Your task to perform on an android device: install app "Spotify: Music and Podcasts" Image 0: 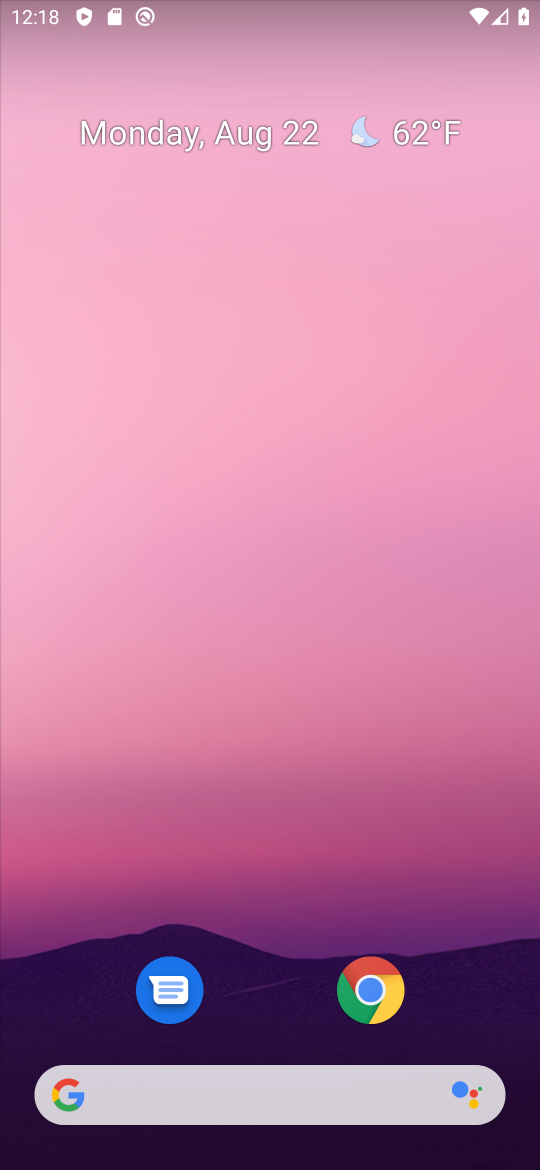
Step 0: drag from (247, 906) to (263, 261)
Your task to perform on an android device: install app "Spotify: Music and Podcasts" Image 1: 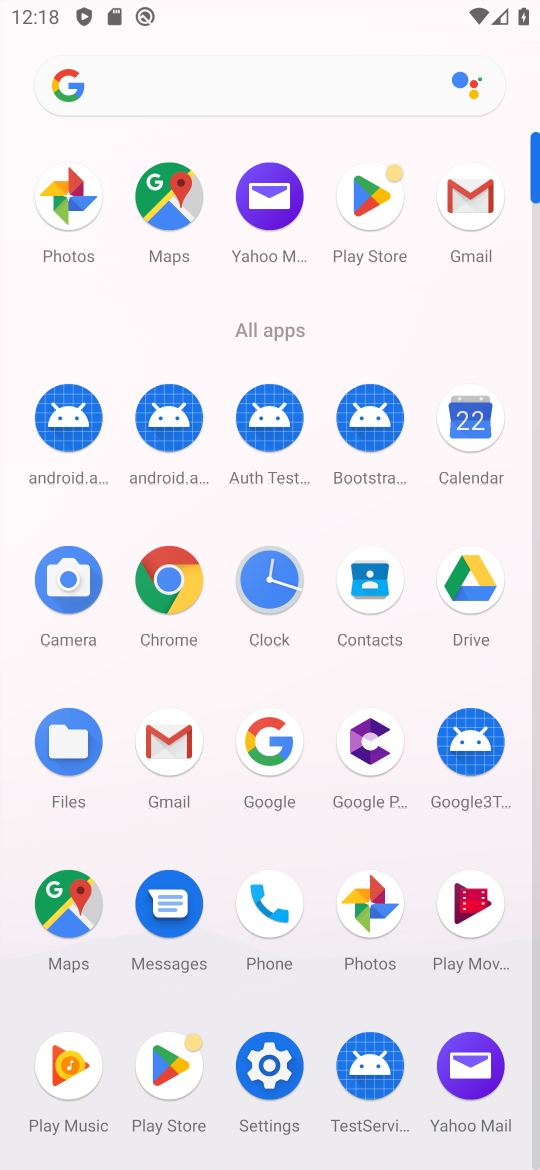
Step 1: click (391, 202)
Your task to perform on an android device: install app "Spotify: Music and Podcasts" Image 2: 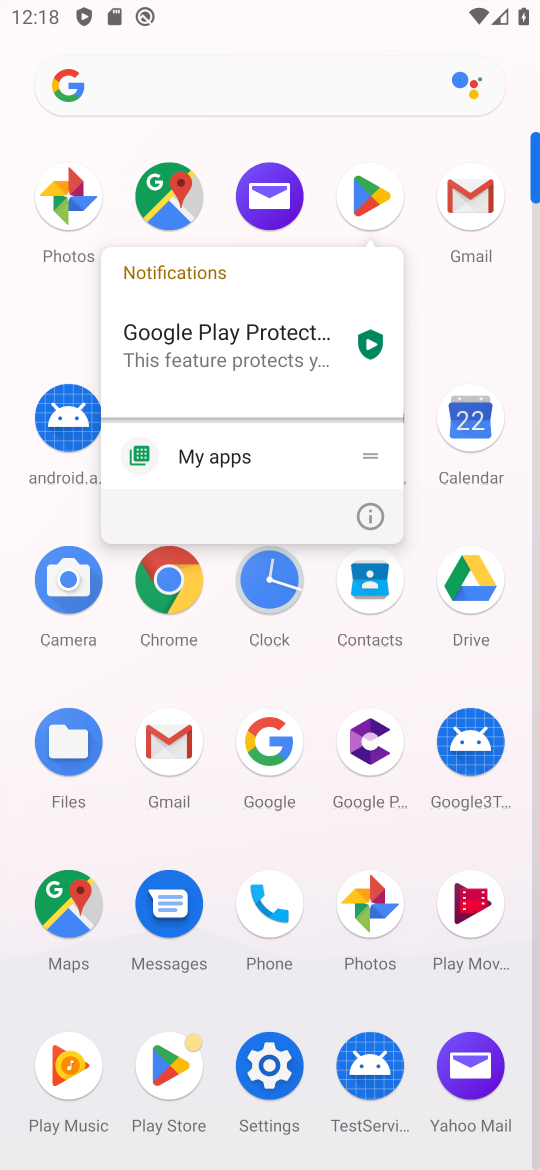
Step 2: click (388, 193)
Your task to perform on an android device: install app "Spotify: Music and Podcasts" Image 3: 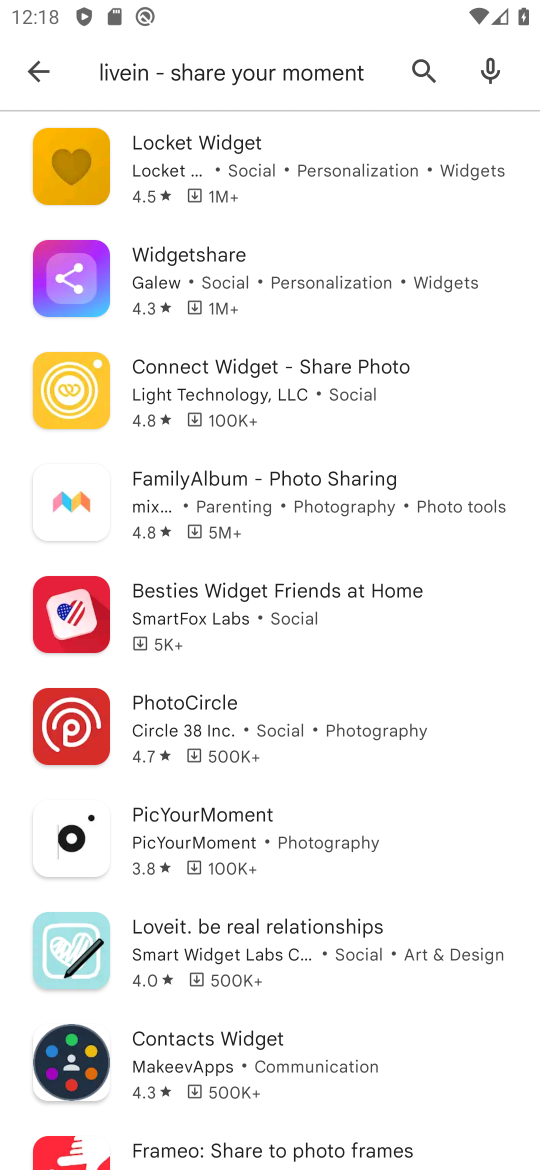
Step 3: click (424, 57)
Your task to perform on an android device: install app "Spotify: Music and Podcasts" Image 4: 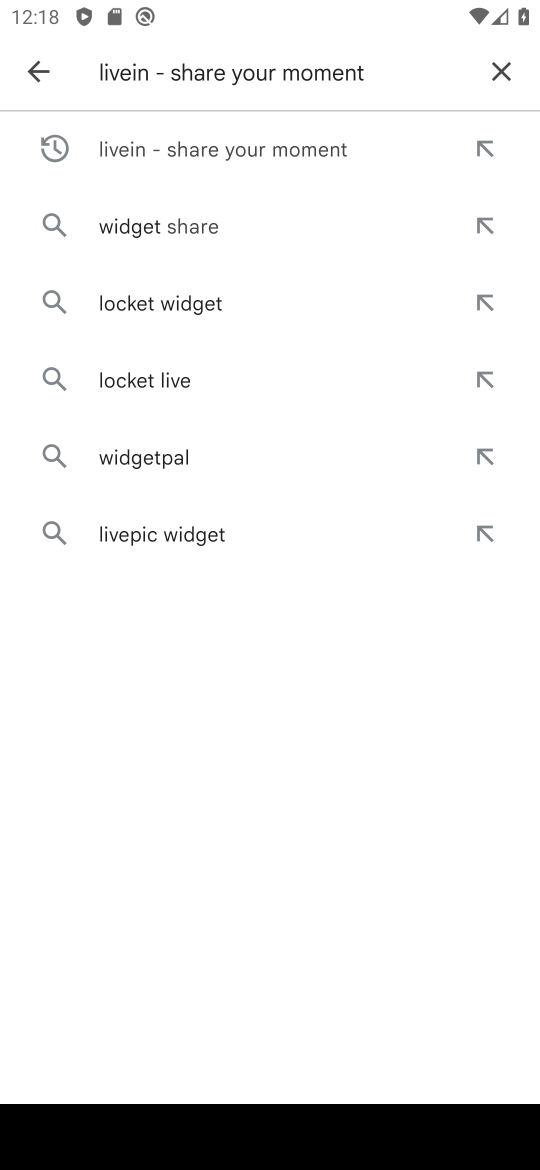
Step 4: click (496, 76)
Your task to perform on an android device: install app "Spotify: Music and Podcasts" Image 5: 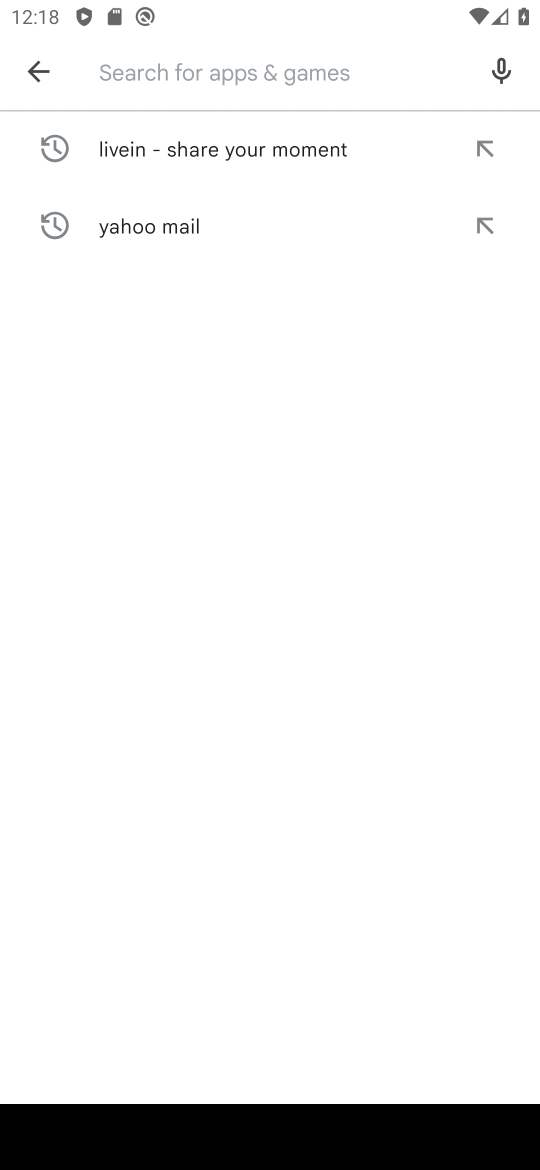
Step 5: type "Spotify: Music and Podcasts"
Your task to perform on an android device: install app "Spotify: Music and Podcasts" Image 6: 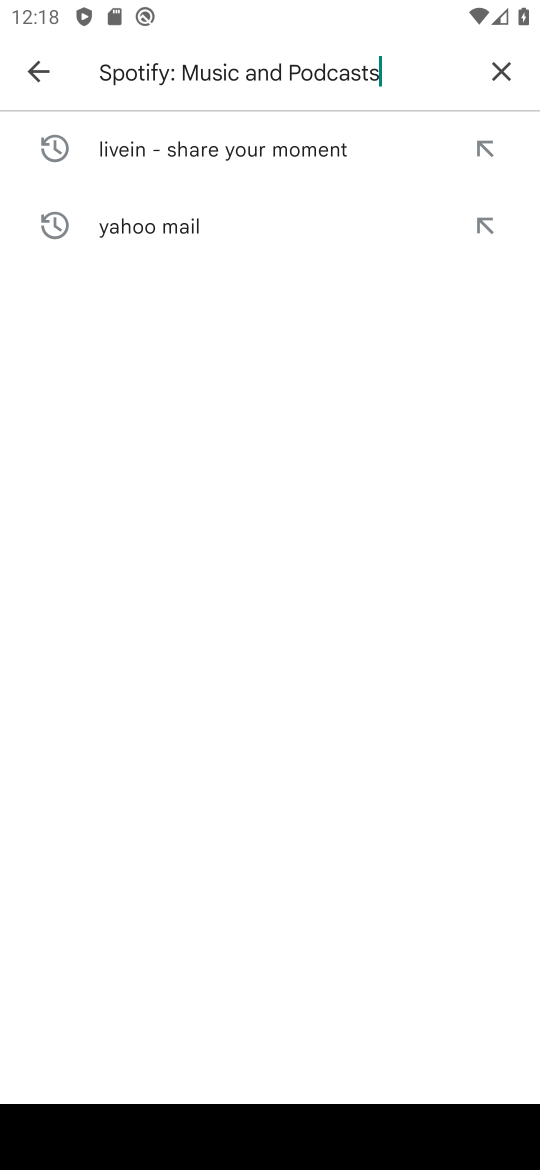
Step 6: type ""
Your task to perform on an android device: install app "Spotify: Music and Podcasts" Image 7: 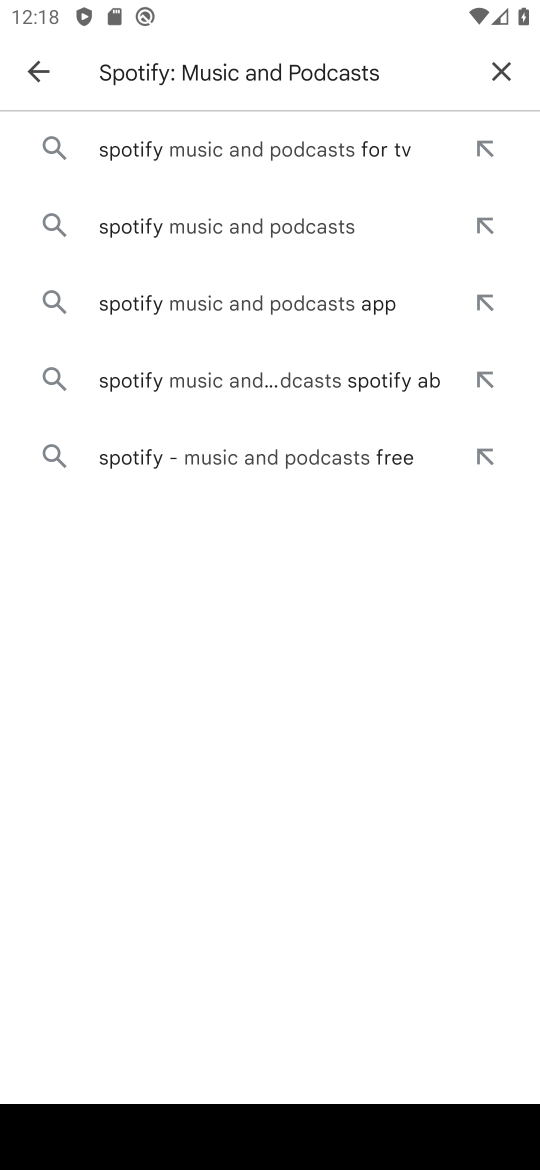
Step 7: click (211, 146)
Your task to perform on an android device: install app "Spotify: Music and Podcasts" Image 8: 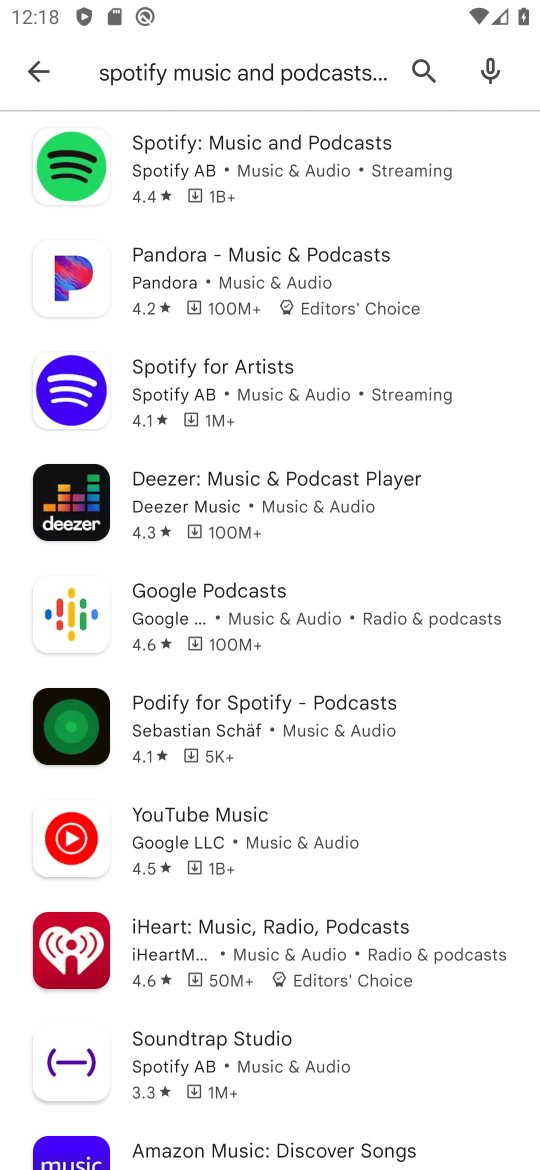
Step 8: click (223, 194)
Your task to perform on an android device: install app "Spotify: Music and Podcasts" Image 9: 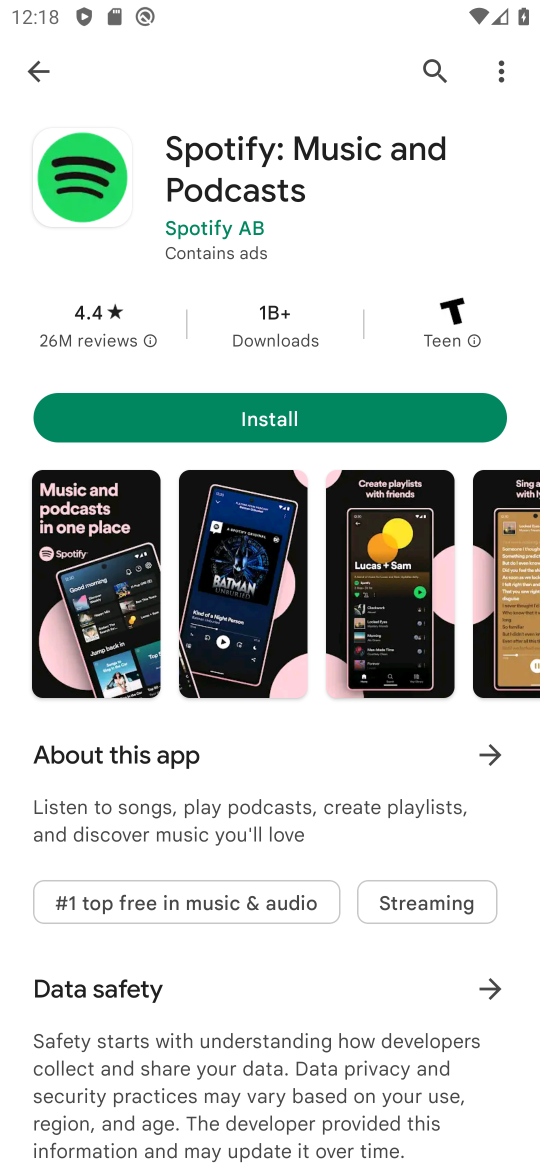
Step 9: click (253, 411)
Your task to perform on an android device: install app "Spotify: Music and Podcasts" Image 10: 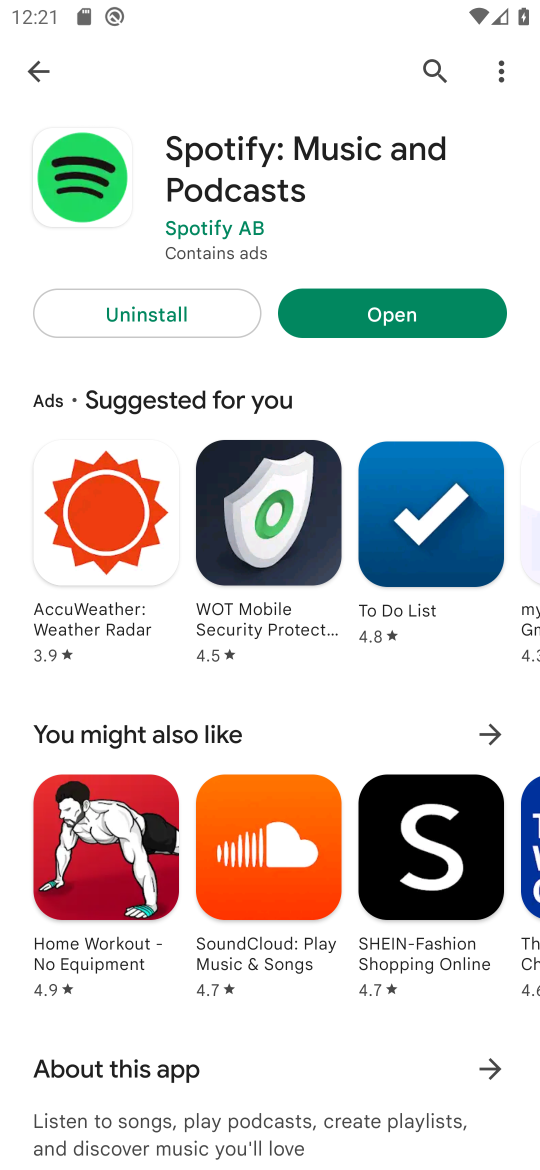
Step 10: task complete